Your task to perform on an android device: turn on wifi Image 0: 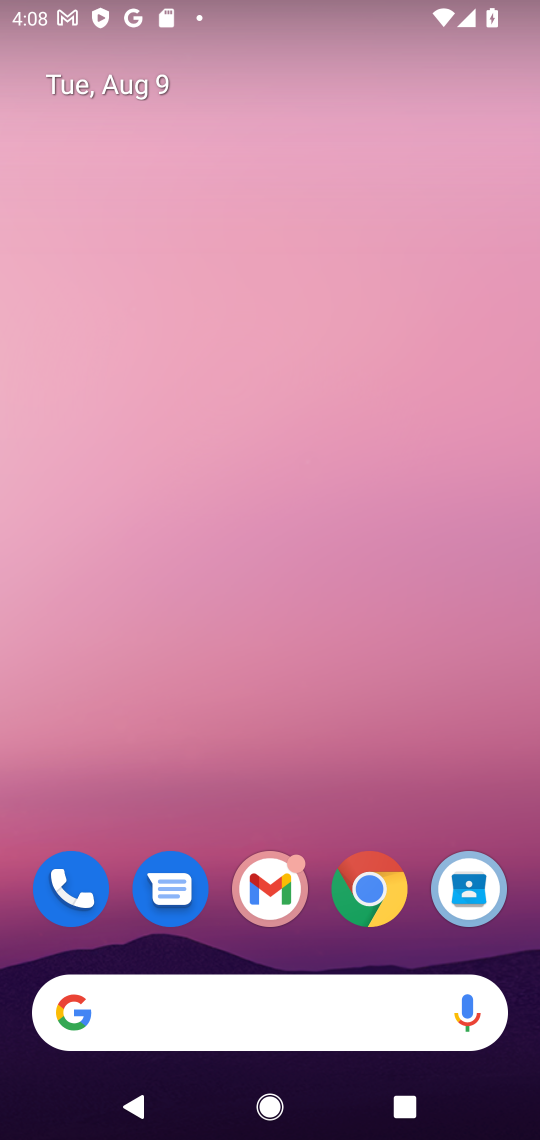
Step 0: drag from (350, 791) to (404, 4)
Your task to perform on an android device: turn on wifi Image 1: 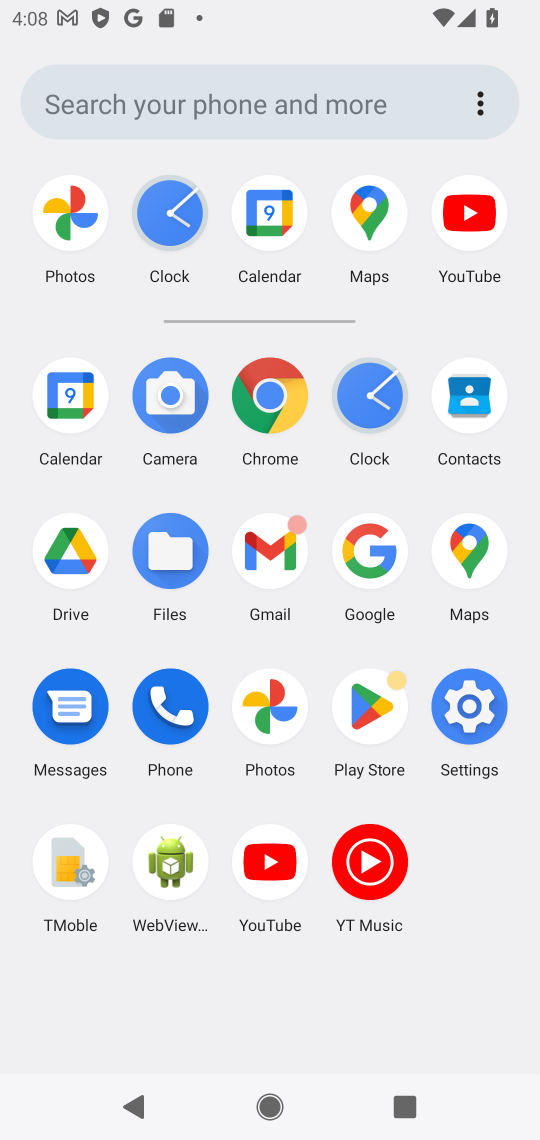
Step 1: click (466, 698)
Your task to perform on an android device: turn on wifi Image 2: 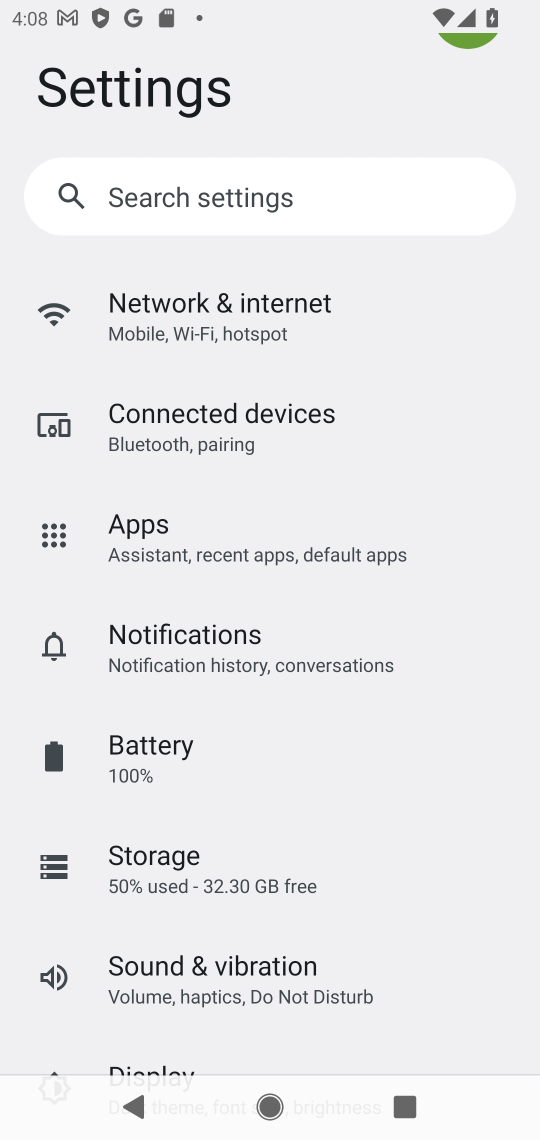
Step 2: click (272, 325)
Your task to perform on an android device: turn on wifi Image 3: 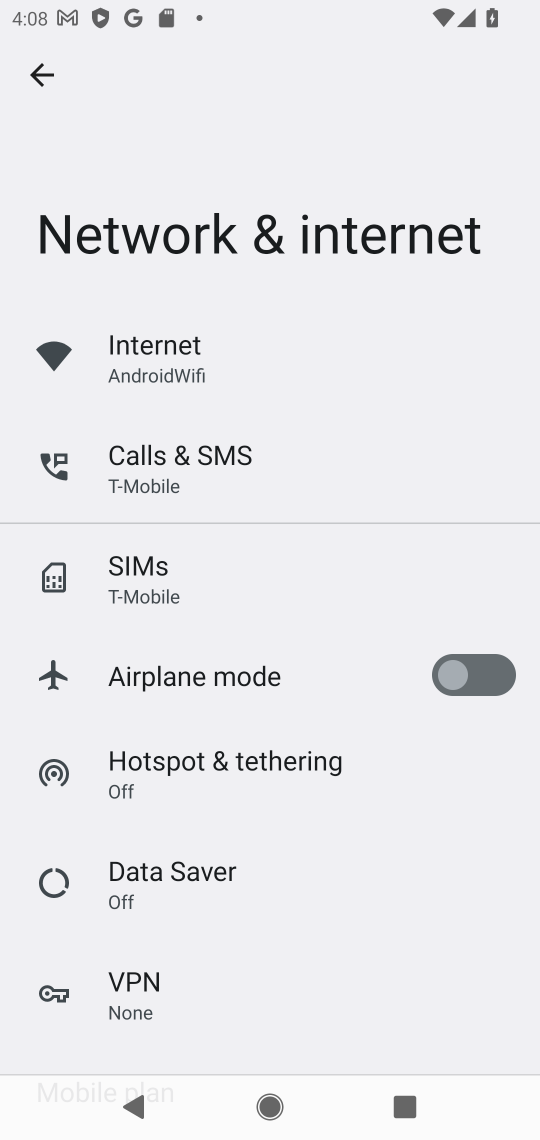
Step 3: task complete